Your task to perform on an android device: open app "Google Drive" (install if not already installed) Image 0: 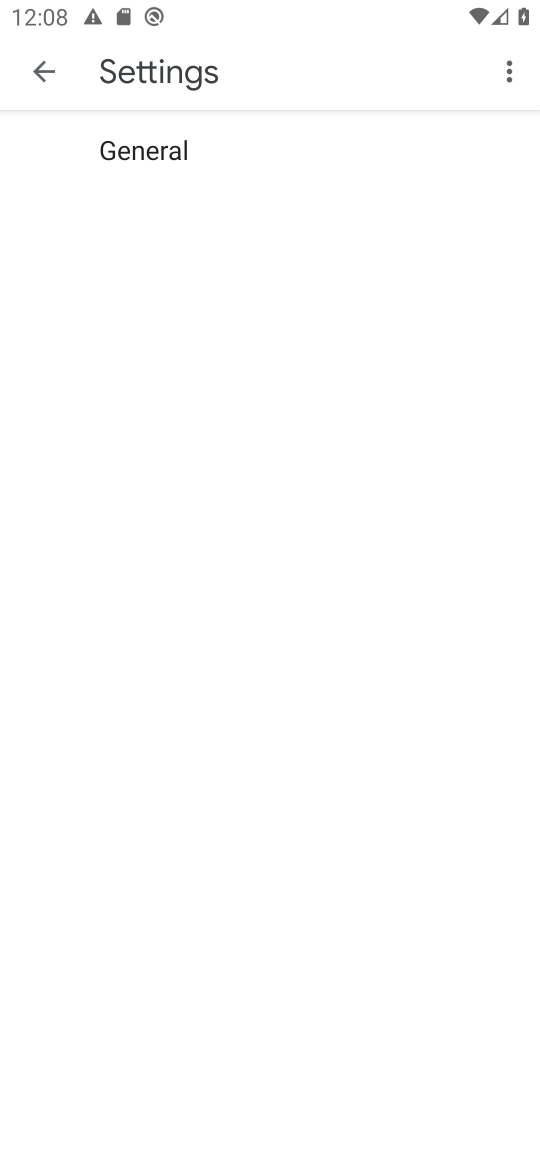
Step 0: click (29, 73)
Your task to perform on an android device: open app "Google Drive" (install if not already installed) Image 1: 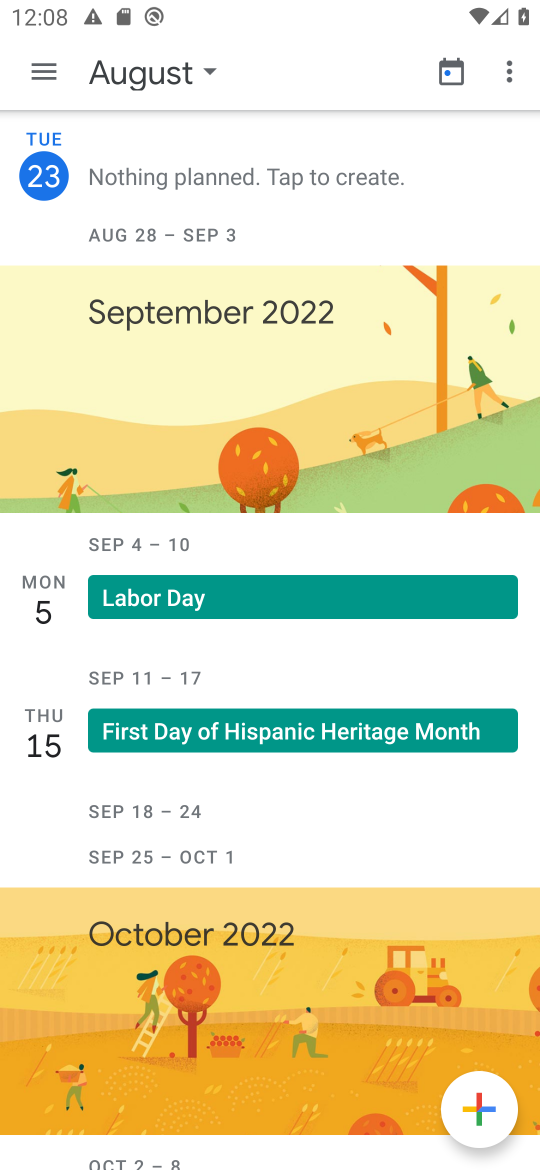
Step 1: press home button
Your task to perform on an android device: open app "Google Drive" (install if not already installed) Image 2: 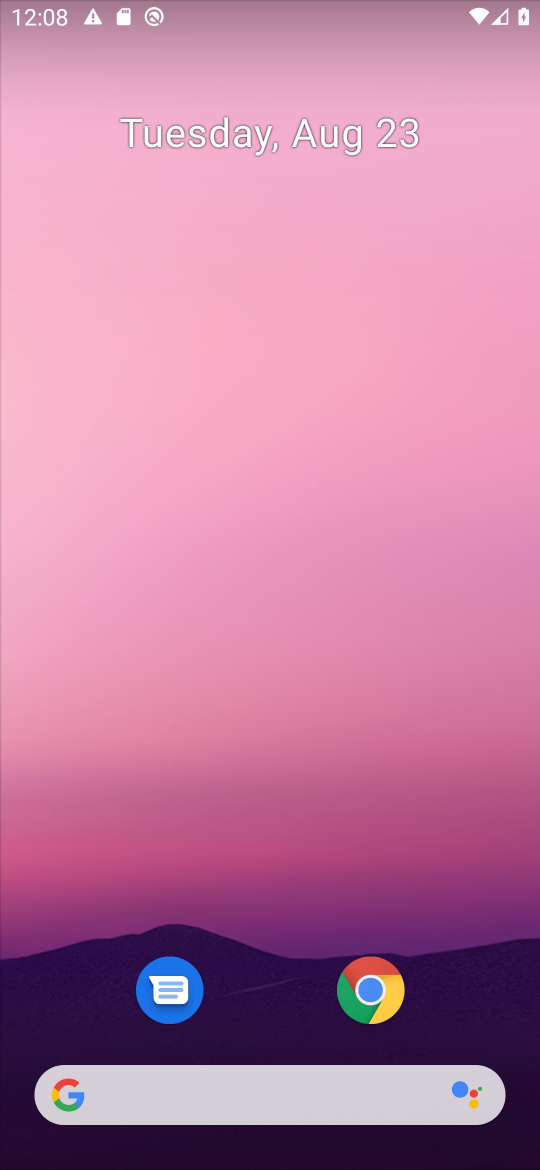
Step 2: drag from (252, 1023) to (258, 202)
Your task to perform on an android device: open app "Google Drive" (install if not already installed) Image 3: 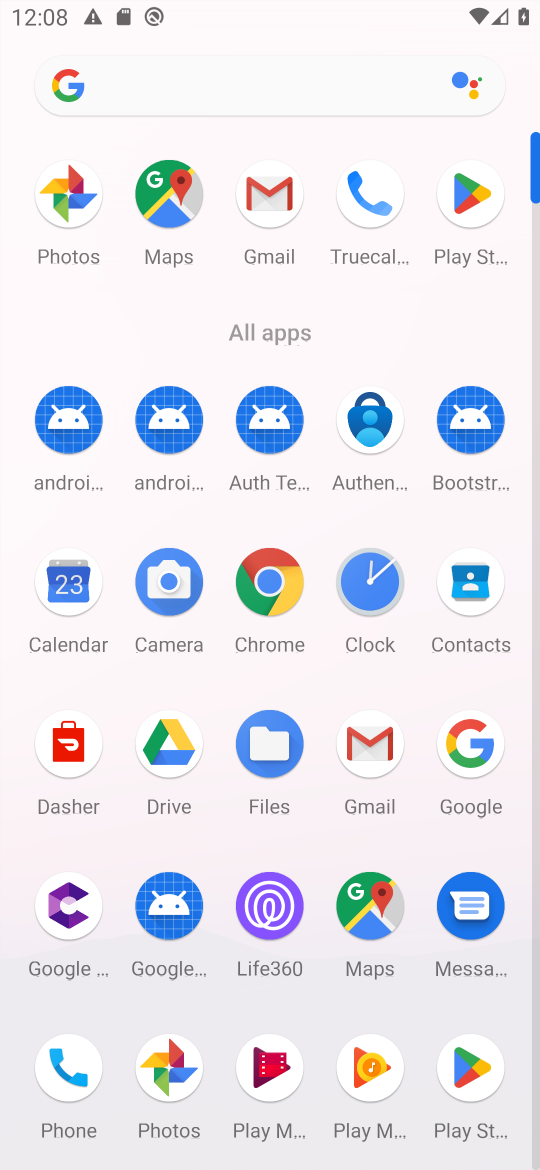
Step 3: click (473, 180)
Your task to perform on an android device: open app "Google Drive" (install if not already installed) Image 4: 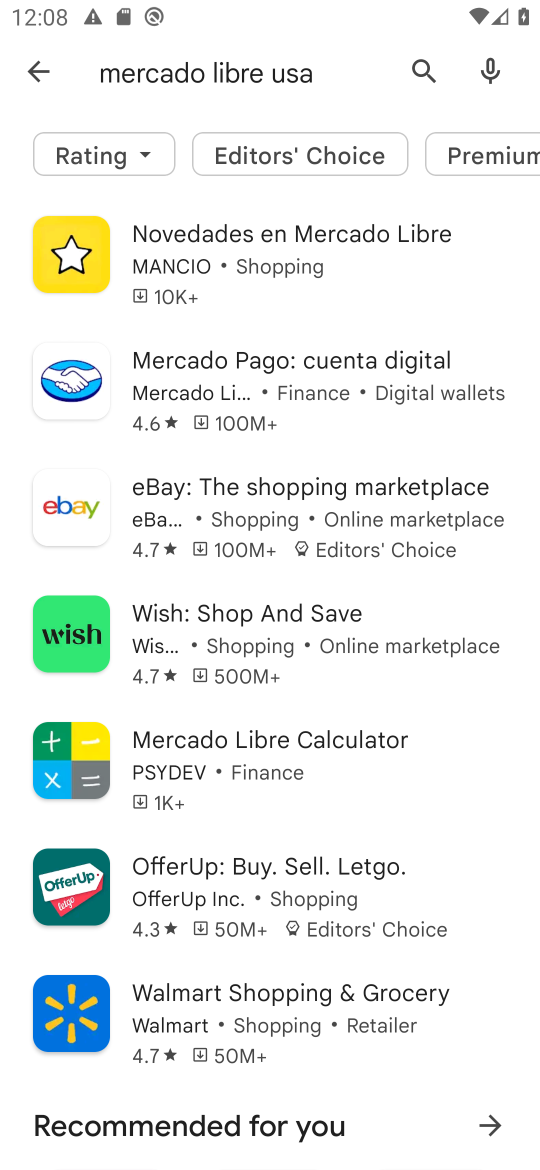
Step 4: click (48, 75)
Your task to perform on an android device: open app "Google Drive" (install if not already installed) Image 5: 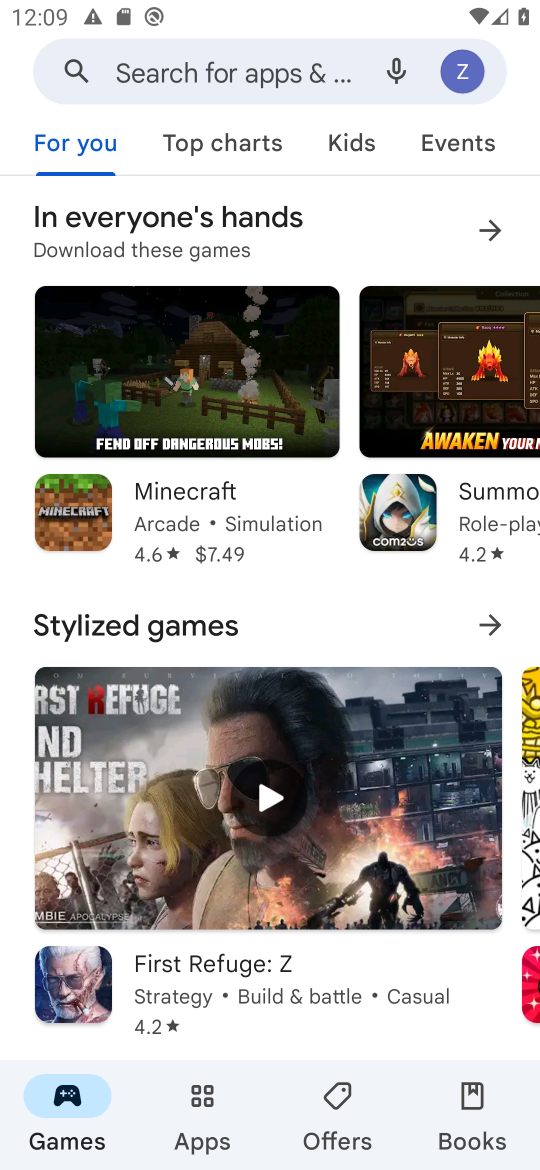
Step 5: click (268, 61)
Your task to perform on an android device: open app "Google Drive" (install if not already installed) Image 6: 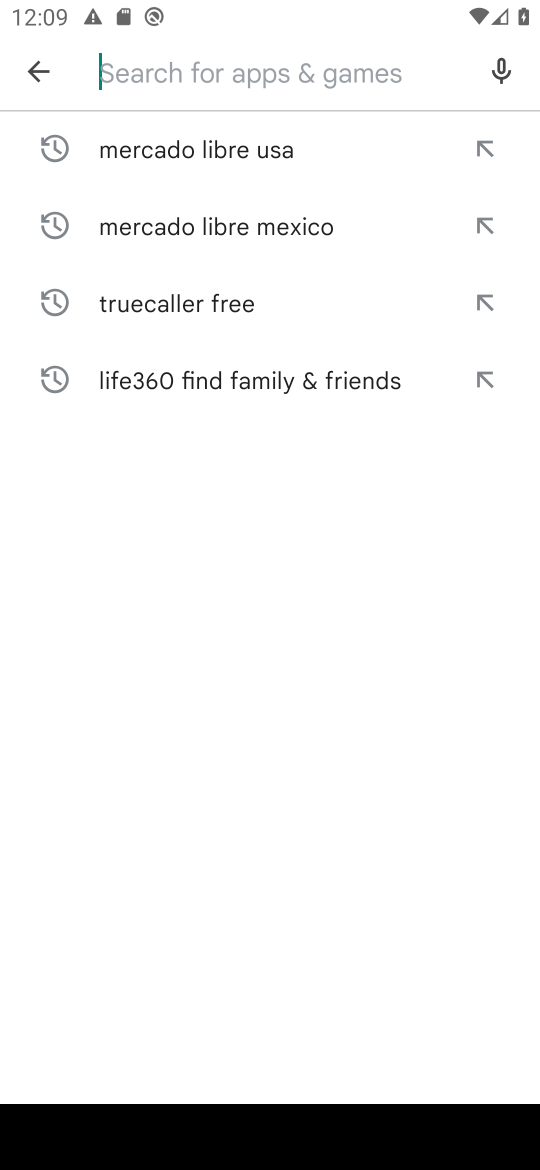
Step 6: type "Google Drive "
Your task to perform on an android device: open app "Google Drive" (install if not already installed) Image 7: 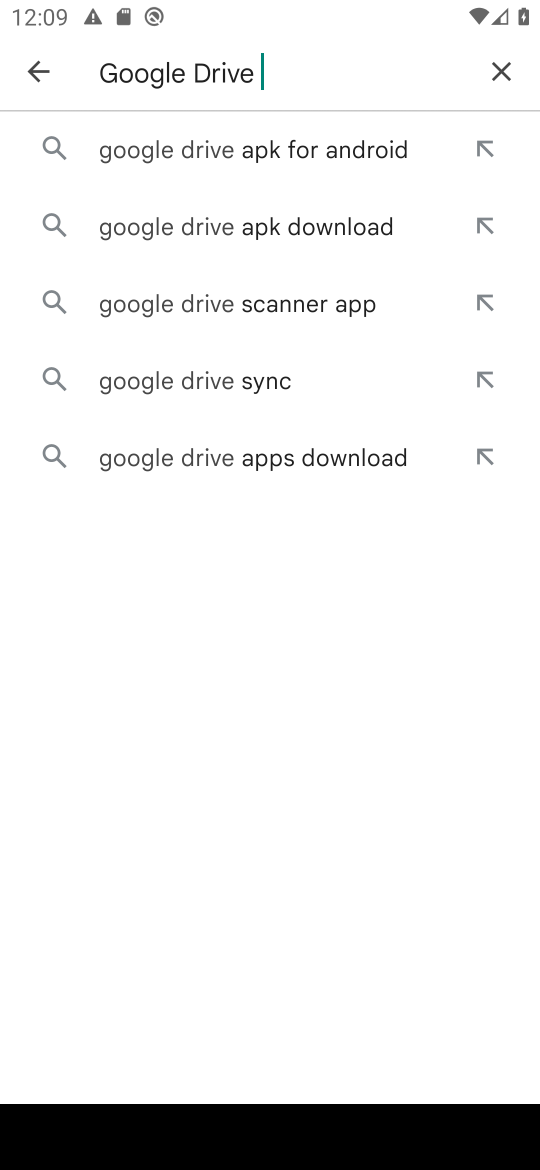
Step 7: click (268, 149)
Your task to perform on an android device: open app "Google Drive" (install if not already installed) Image 8: 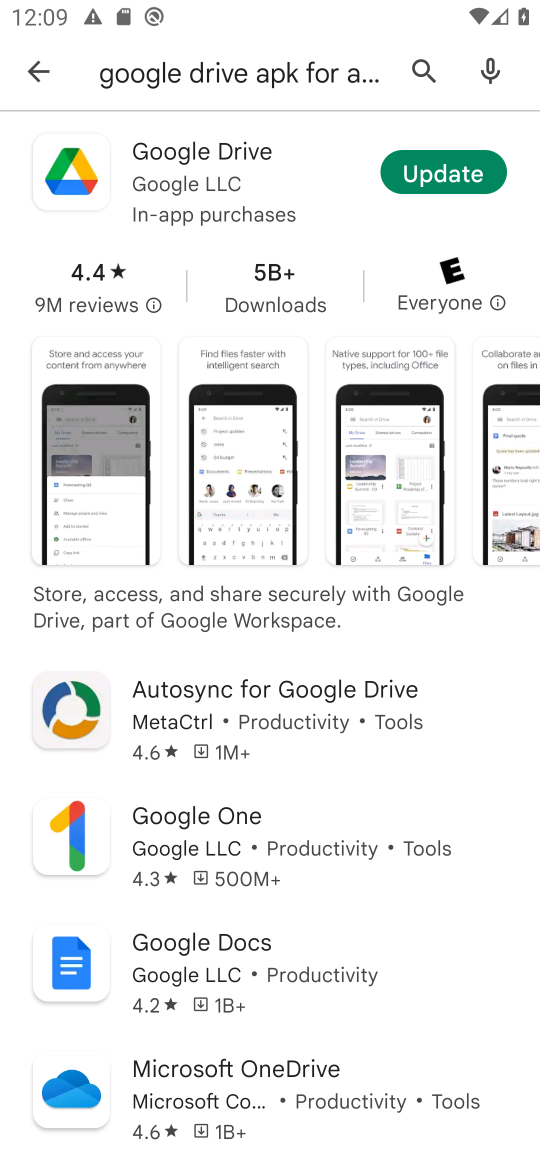
Step 8: click (444, 173)
Your task to perform on an android device: open app "Google Drive" (install if not already installed) Image 9: 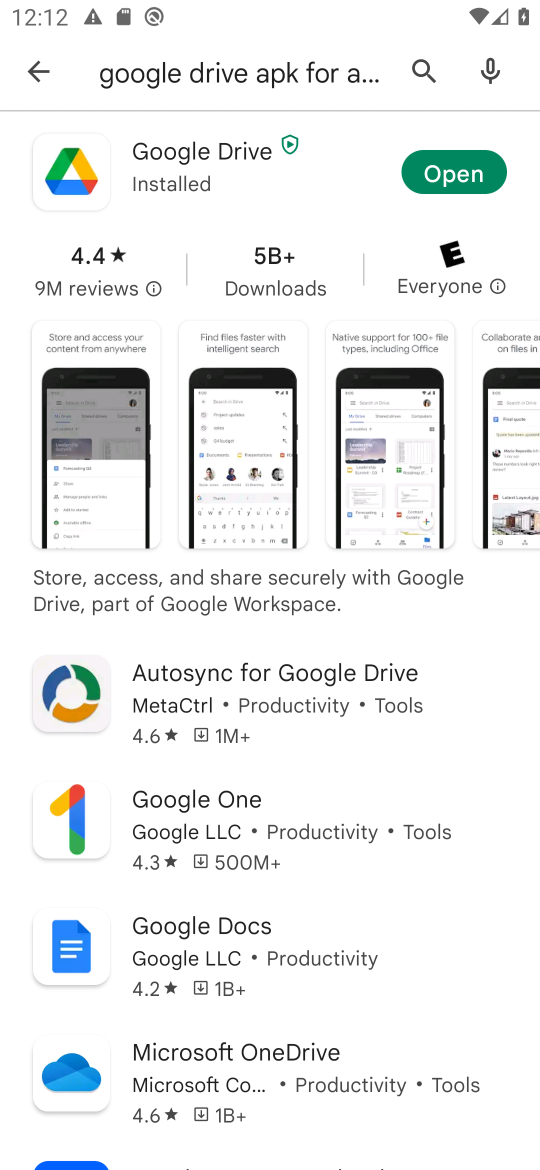
Step 9: click (453, 154)
Your task to perform on an android device: open app "Google Drive" (install if not already installed) Image 10: 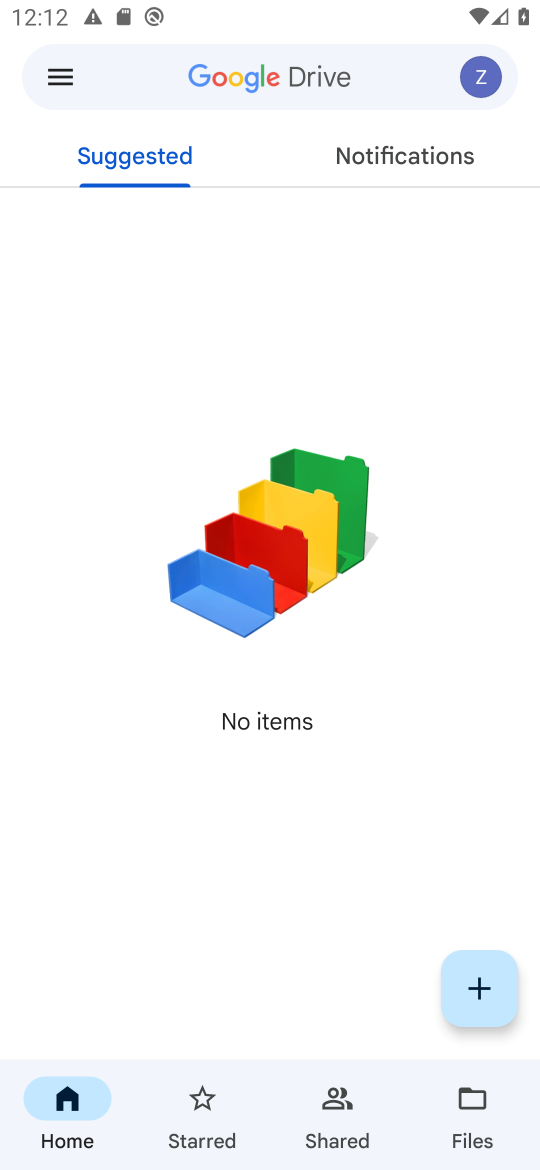
Step 10: task complete